Your task to perform on an android device: open sync settings in chrome Image 0: 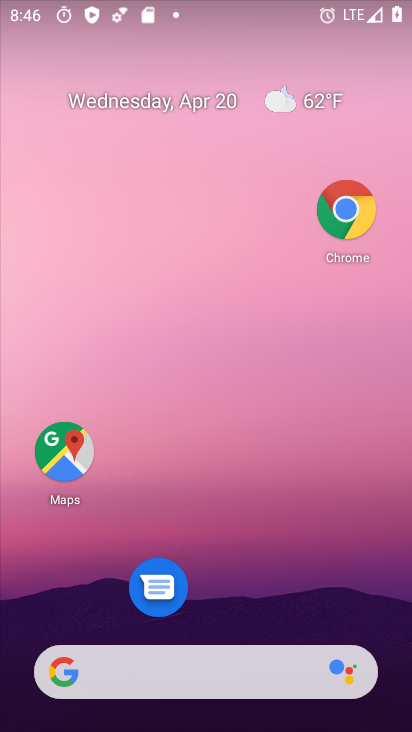
Step 0: click (353, 215)
Your task to perform on an android device: open sync settings in chrome Image 1: 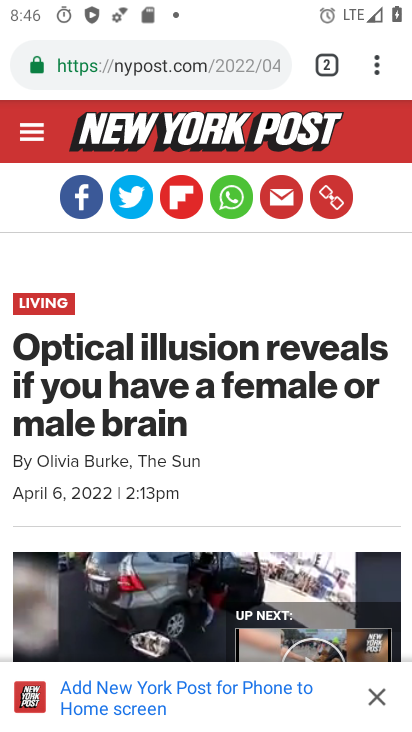
Step 1: click (381, 72)
Your task to perform on an android device: open sync settings in chrome Image 2: 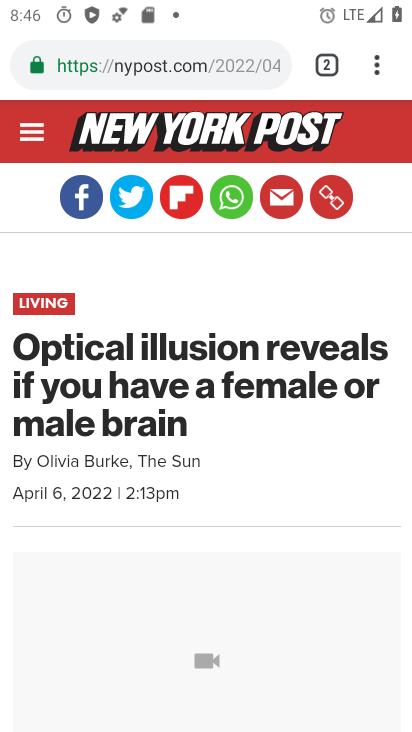
Step 2: click (381, 72)
Your task to perform on an android device: open sync settings in chrome Image 3: 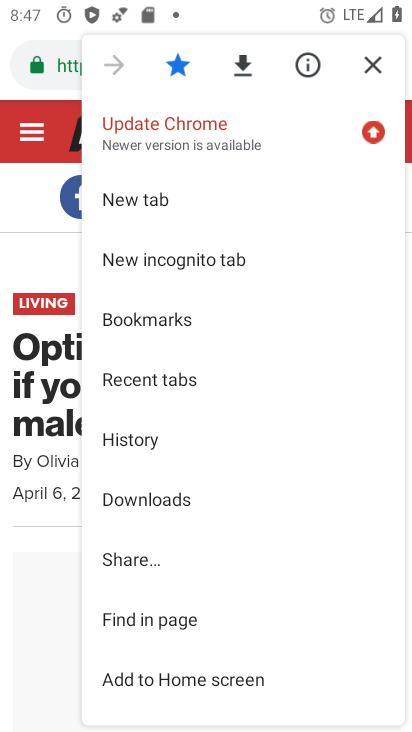
Step 3: drag from (131, 602) to (177, 195)
Your task to perform on an android device: open sync settings in chrome Image 4: 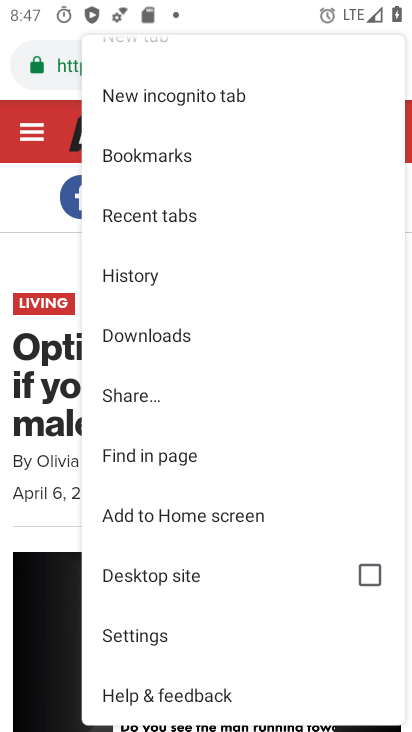
Step 4: click (184, 645)
Your task to perform on an android device: open sync settings in chrome Image 5: 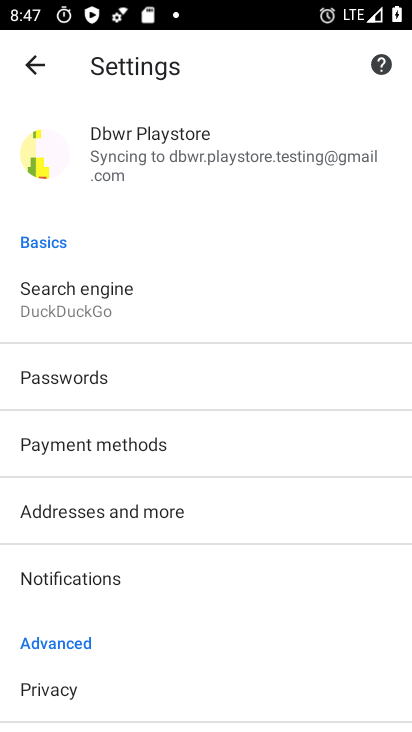
Step 5: click (188, 158)
Your task to perform on an android device: open sync settings in chrome Image 6: 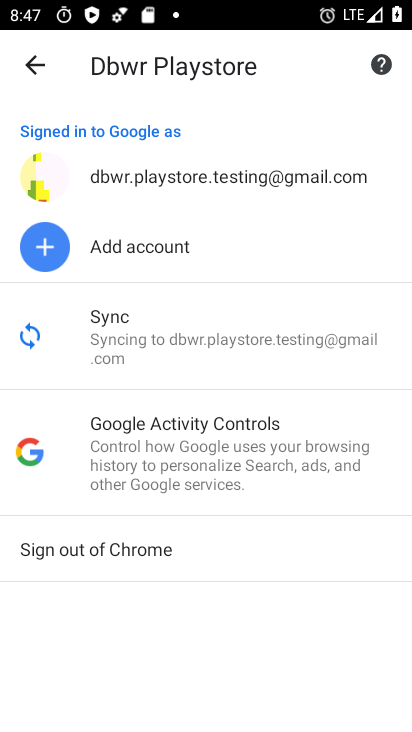
Step 6: click (199, 357)
Your task to perform on an android device: open sync settings in chrome Image 7: 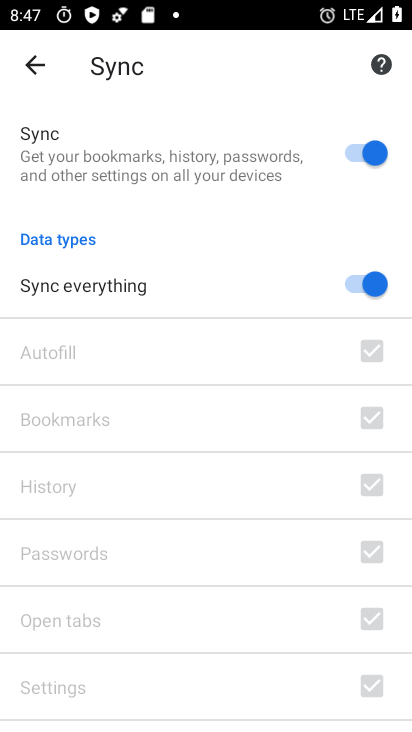
Step 7: task complete